Your task to perform on an android device: Open my contact list Image 0: 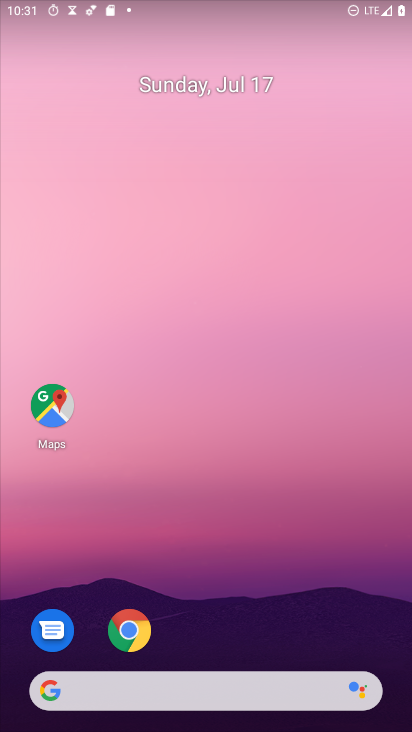
Step 0: drag from (158, 674) to (374, 337)
Your task to perform on an android device: Open my contact list Image 1: 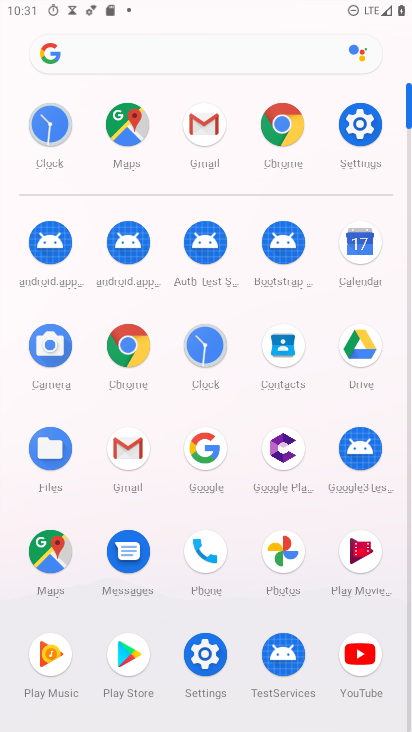
Step 1: click (288, 346)
Your task to perform on an android device: Open my contact list Image 2: 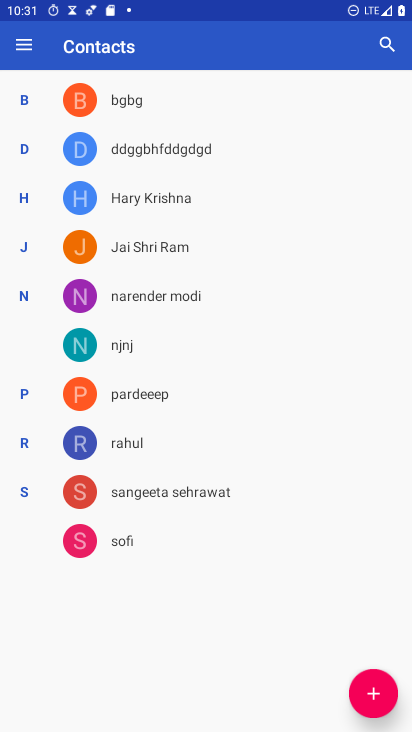
Step 2: task complete